Your task to perform on an android device: Go to privacy settings Image 0: 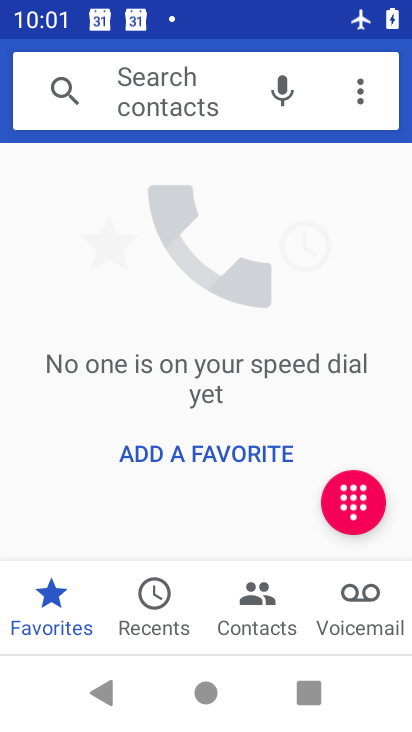
Step 0: press home button
Your task to perform on an android device: Go to privacy settings Image 1: 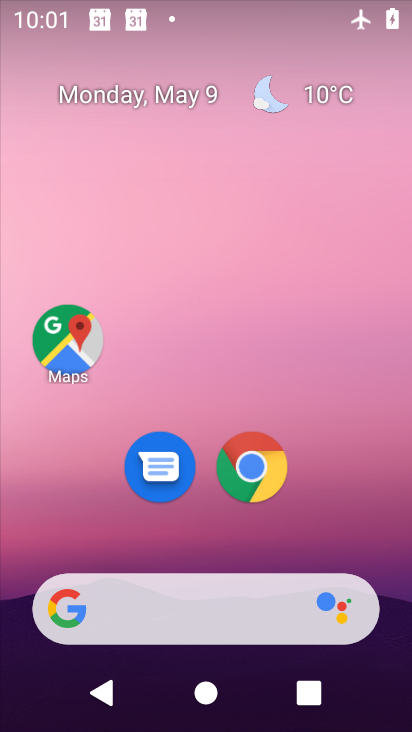
Step 1: drag from (363, 556) to (333, 2)
Your task to perform on an android device: Go to privacy settings Image 2: 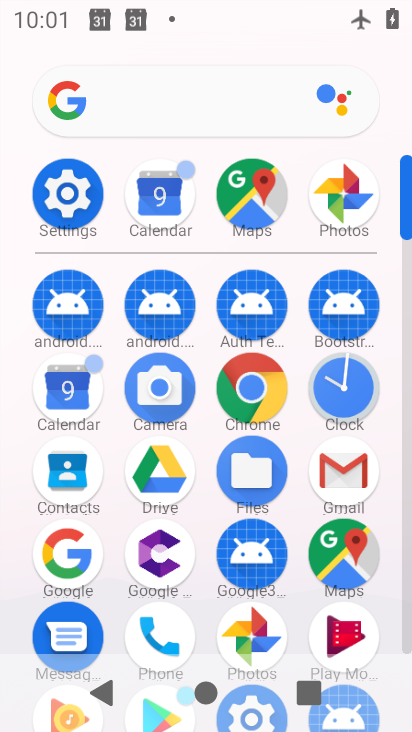
Step 2: click (66, 192)
Your task to perform on an android device: Go to privacy settings Image 3: 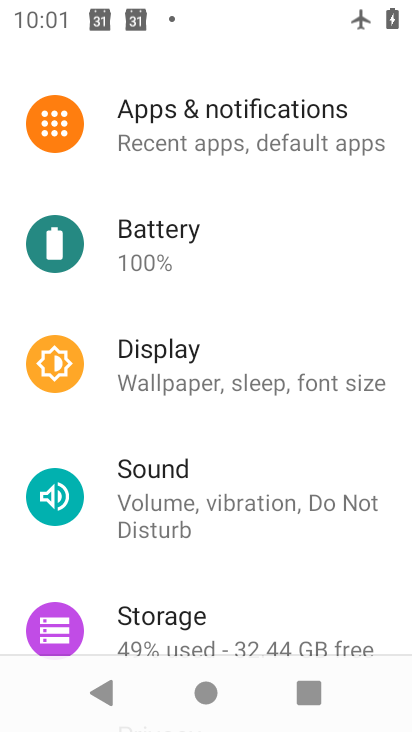
Step 3: drag from (291, 478) to (256, 112)
Your task to perform on an android device: Go to privacy settings Image 4: 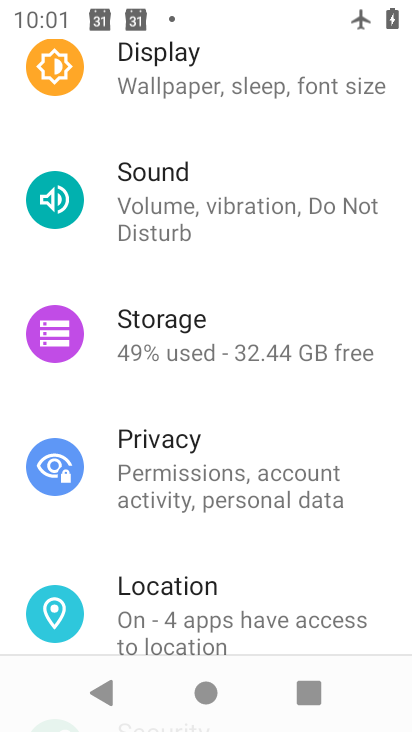
Step 4: click (189, 465)
Your task to perform on an android device: Go to privacy settings Image 5: 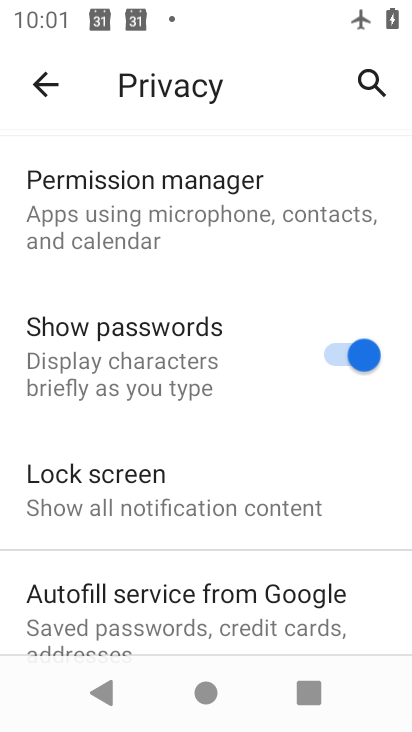
Step 5: task complete